Your task to perform on an android device: all mails in gmail Image 0: 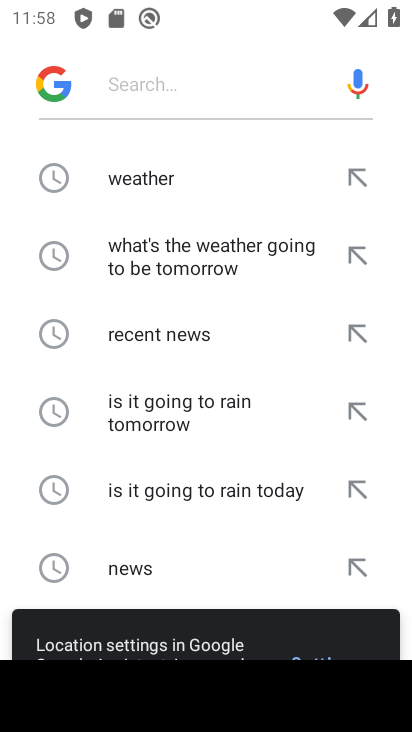
Step 0: press home button
Your task to perform on an android device: all mails in gmail Image 1: 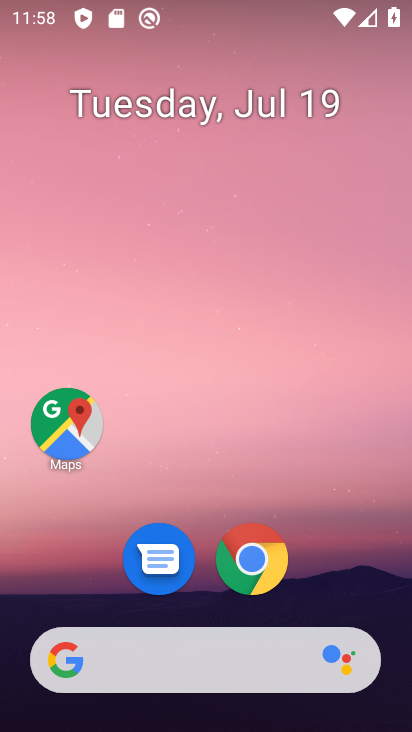
Step 1: drag from (377, 584) to (365, 139)
Your task to perform on an android device: all mails in gmail Image 2: 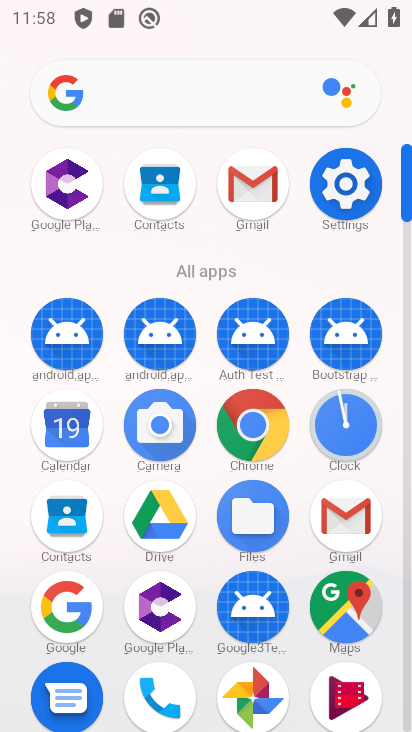
Step 2: click (351, 511)
Your task to perform on an android device: all mails in gmail Image 3: 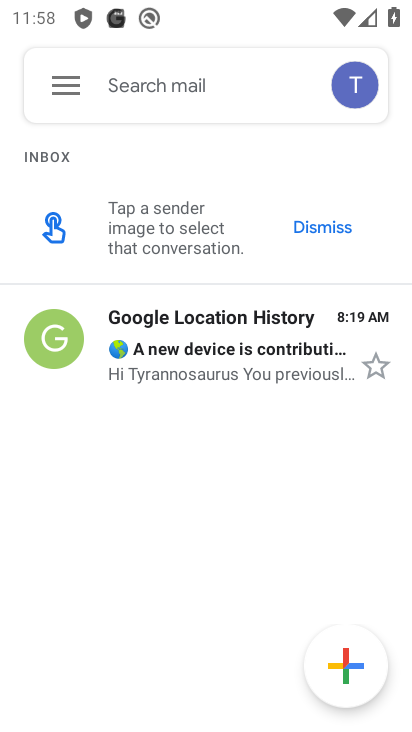
Step 3: click (75, 89)
Your task to perform on an android device: all mails in gmail Image 4: 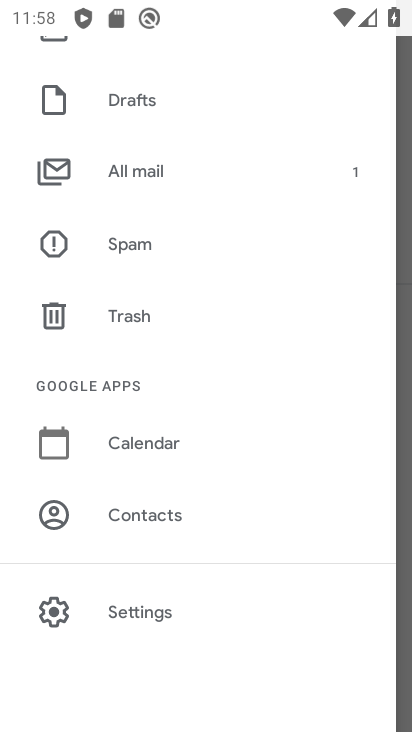
Step 4: drag from (301, 219) to (304, 312)
Your task to perform on an android device: all mails in gmail Image 5: 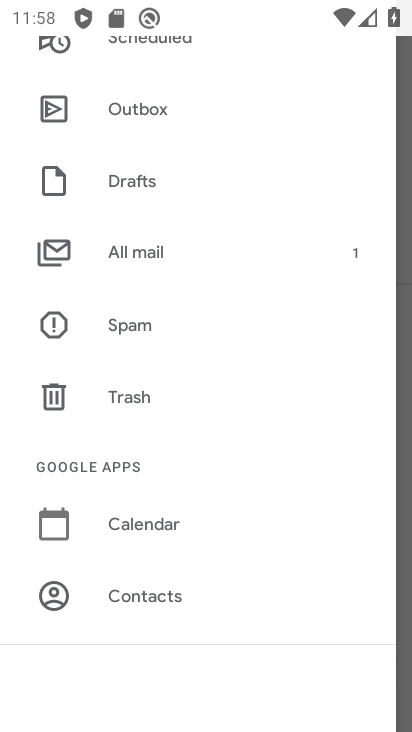
Step 5: drag from (291, 200) to (295, 394)
Your task to perform on an android device: all mails in gmail Image 6: 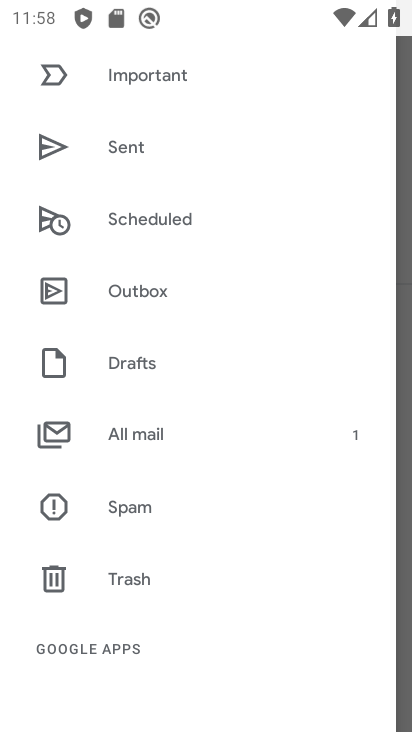
Step 6: drag from (291, 250) to (306, 368)
Your task to perform on an android device: all mails in gmail Image 7: 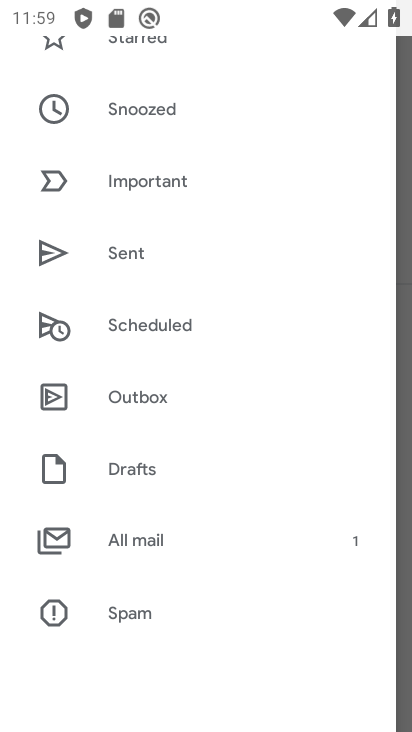
Step 7: click (189, 538)
Your task to perform on an android device: all mails in gmail Image 8: 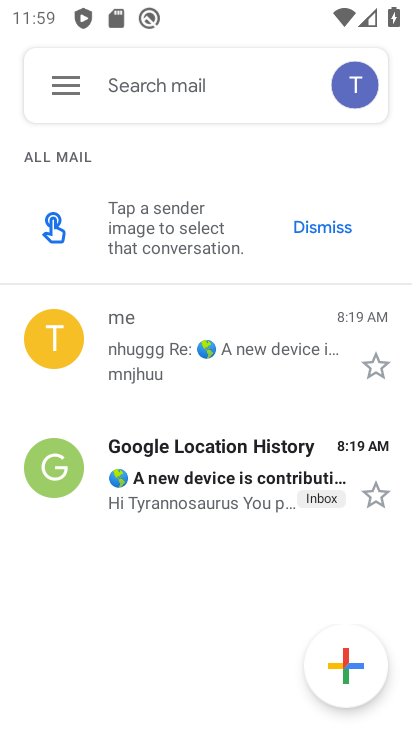
Step 8: task complete